Your task to perform on an android device: open app "Messenger Lite" Image 0: 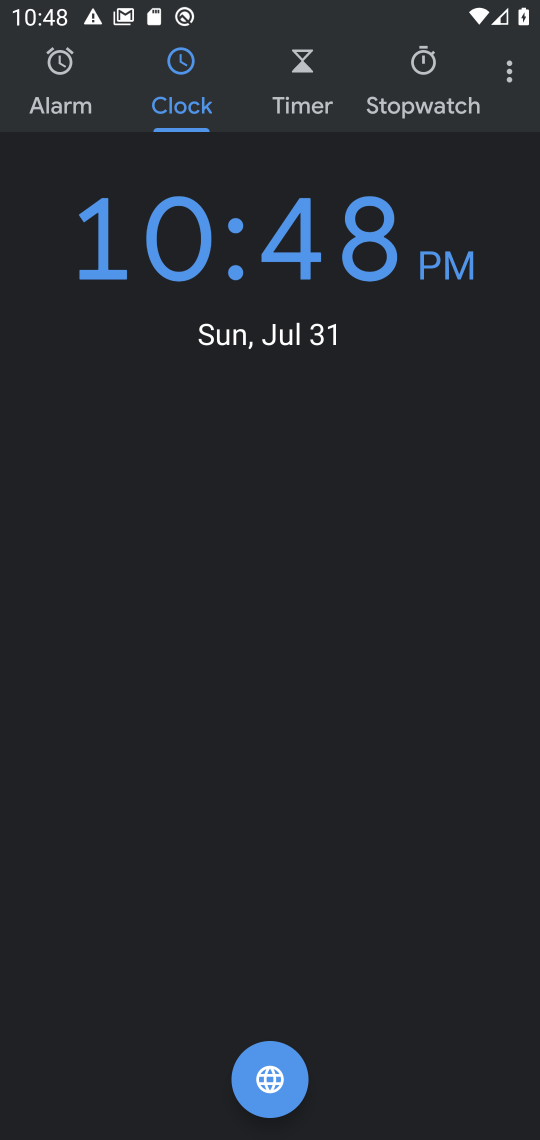
Step 0: press home button
Your task to perform on an android device: open app "Messenger Lite" Image 1: 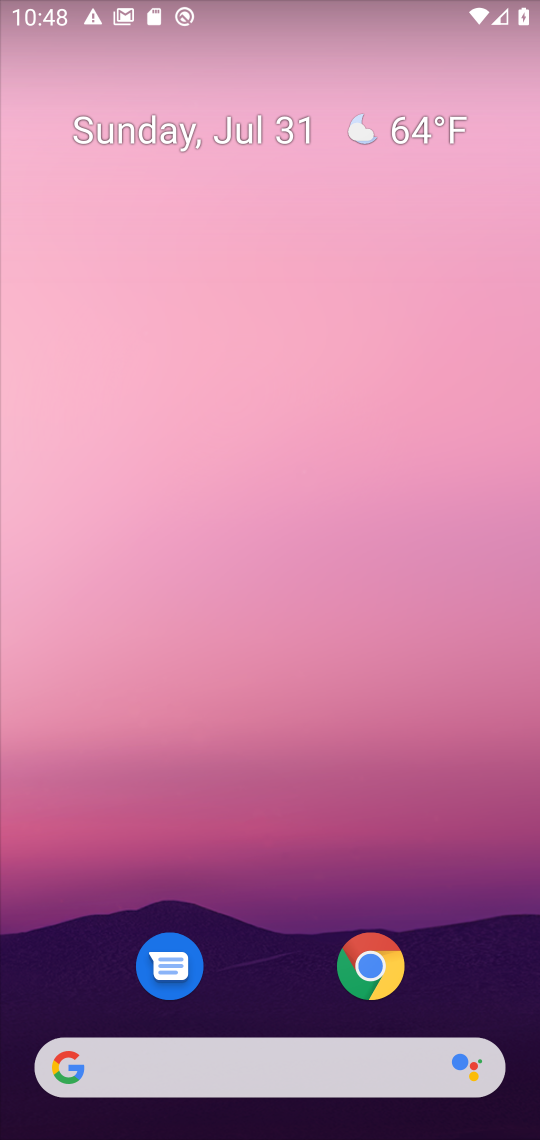
Step 1: drag from (228, 965) to (176, 82)
Your task to perform on an android device: open app "Messenger Lite" Image 2: 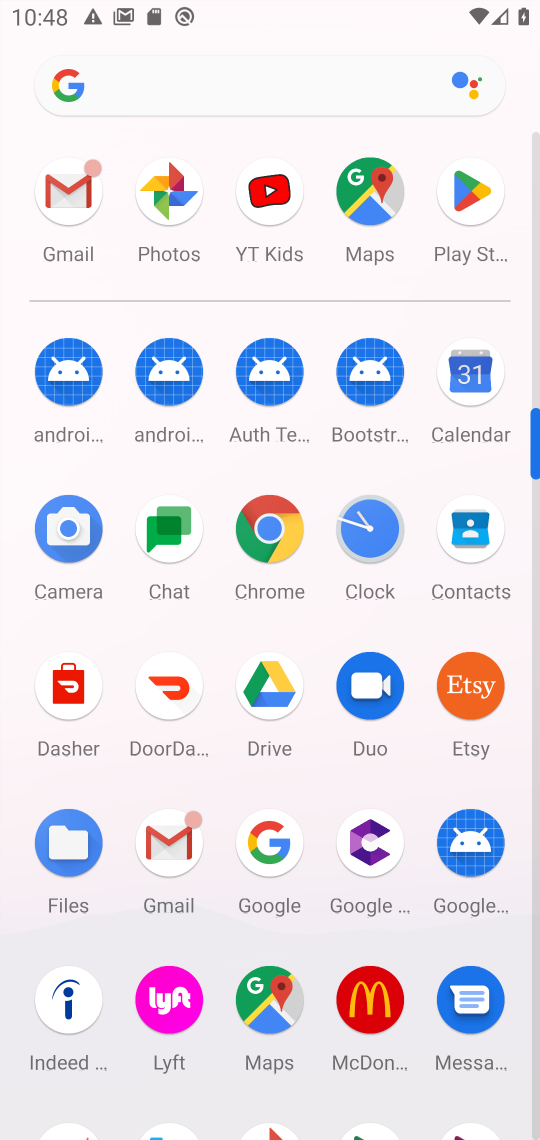
Step 2: click (482, 228)
Your task to perform on an android device: open app "Messenger Lite" Image 3: 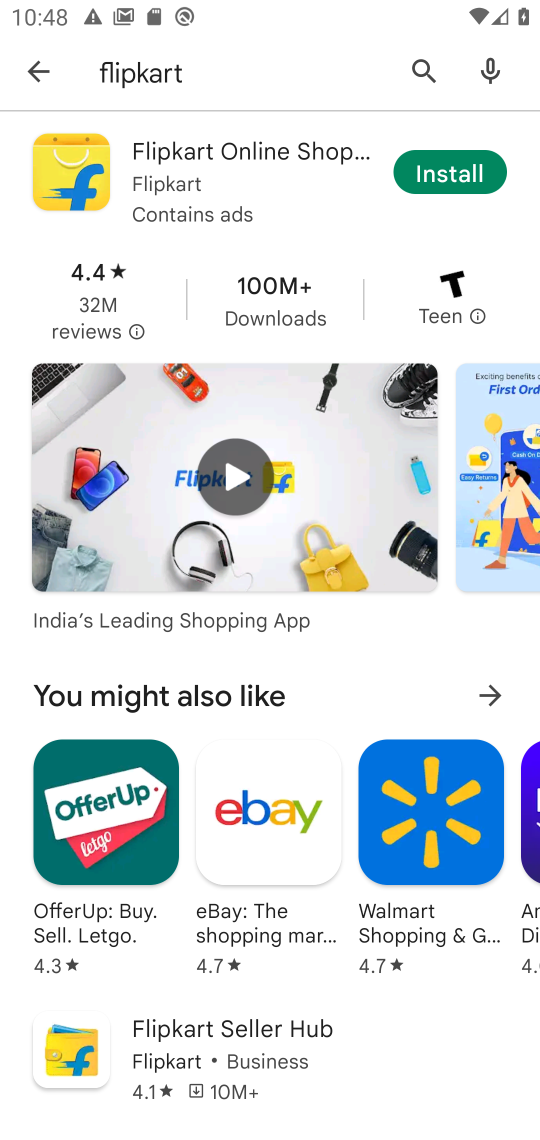
Step 3: click (228, 76)
Your task to perform on an android device: open app "Messenger Lite" Image 4: 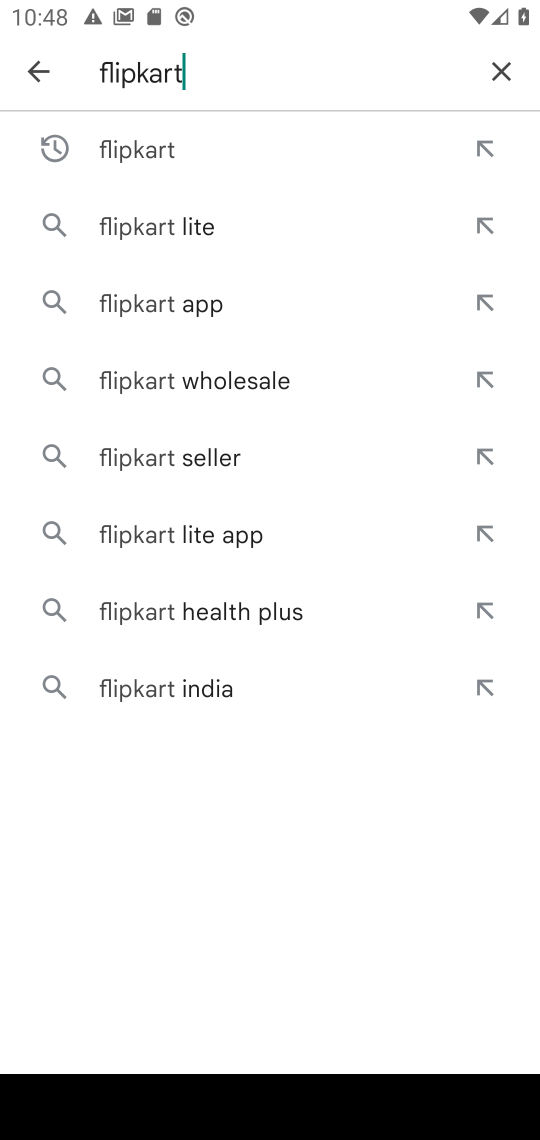
Step 4: click (496, 74)
Your task to perform on an android device: open app "Messenger Lite" Image 5: 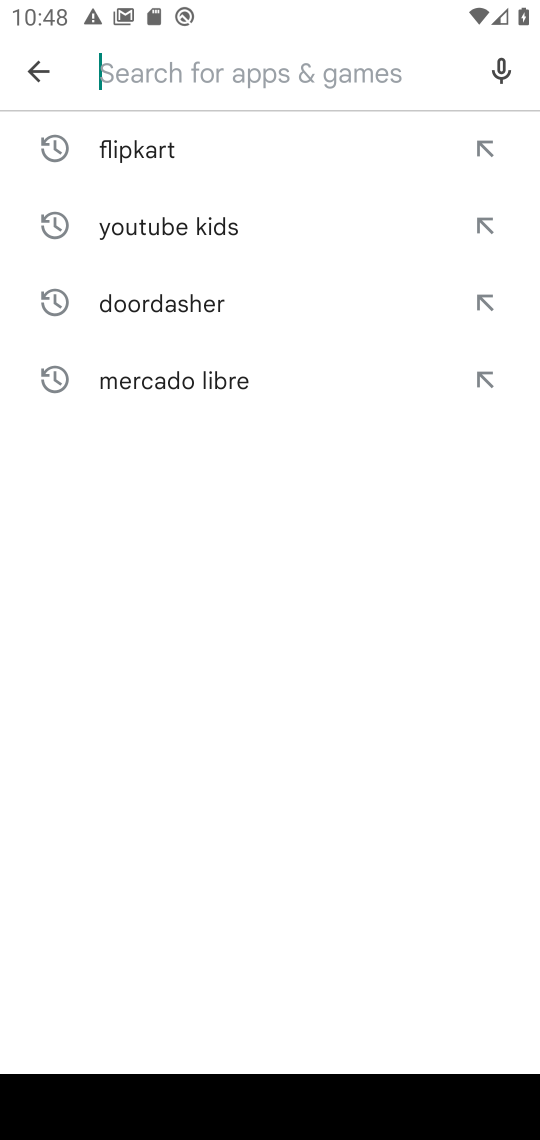
Step 5: type "messenger lite"
Your task to perform on an android device: open app "Messenger Lite" Image 6: 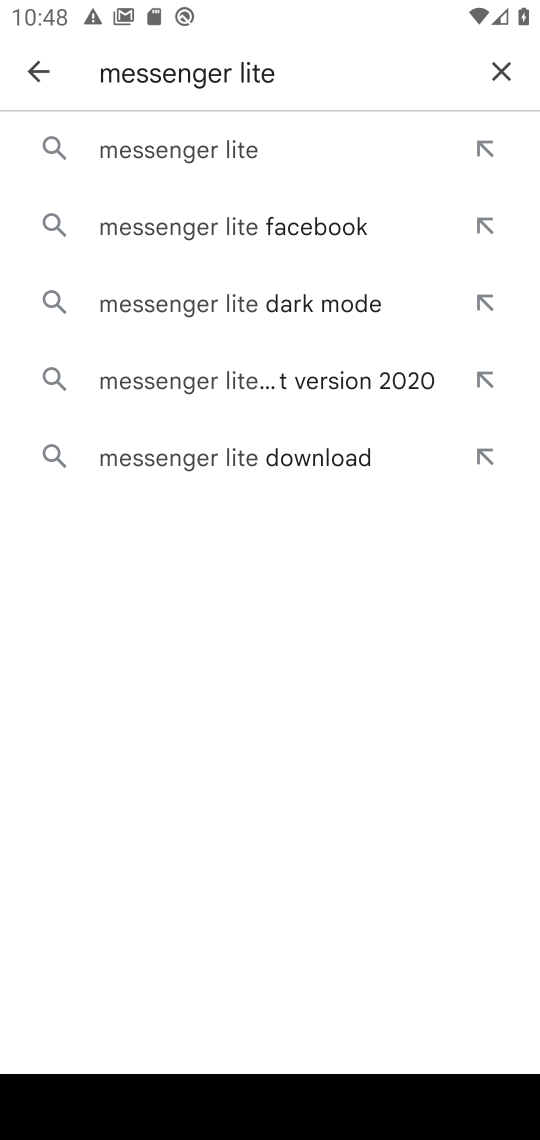
Step 6: click (232, 164)
Your task to perform on an android device: open app "Messenger Lite" Image 7: 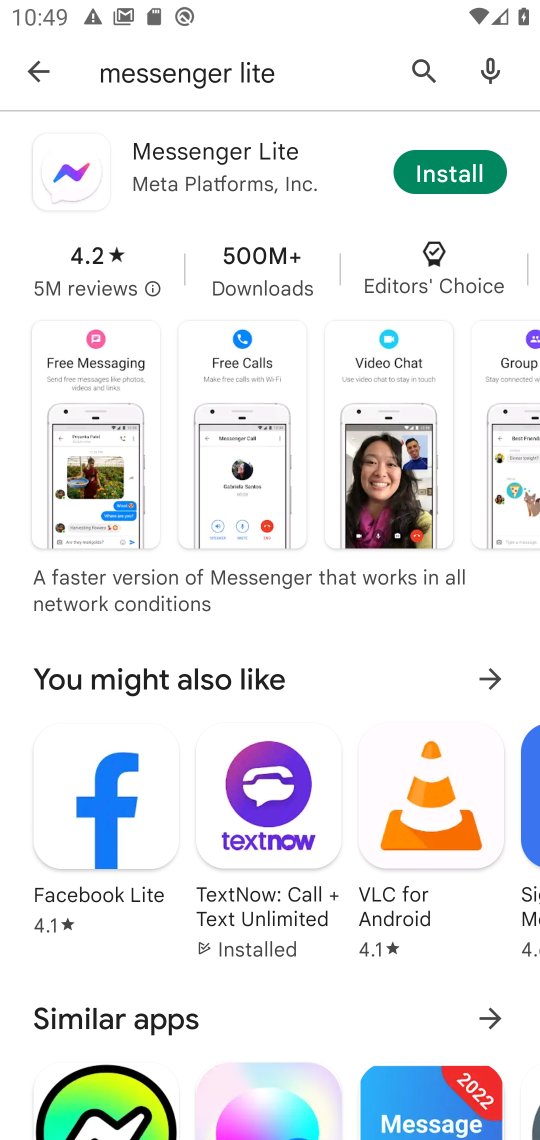
Step 7: task complete